Your task to perform on an android device: Go to internet settings Image 0: 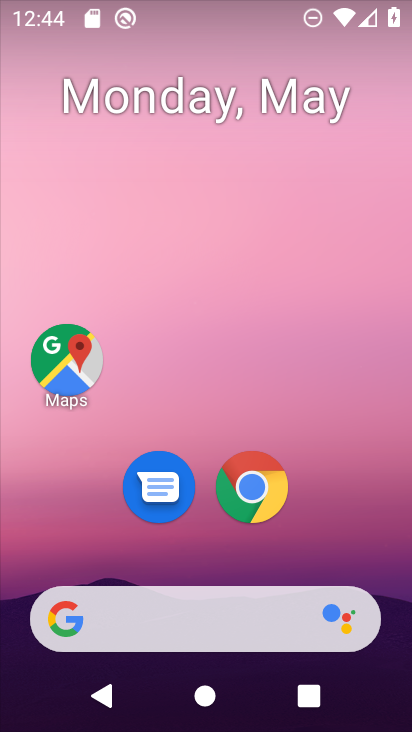
Step 0: drag from (331, 550) to (203, 140)
Your task to perform on an android device: Go to internet settings Image 1: 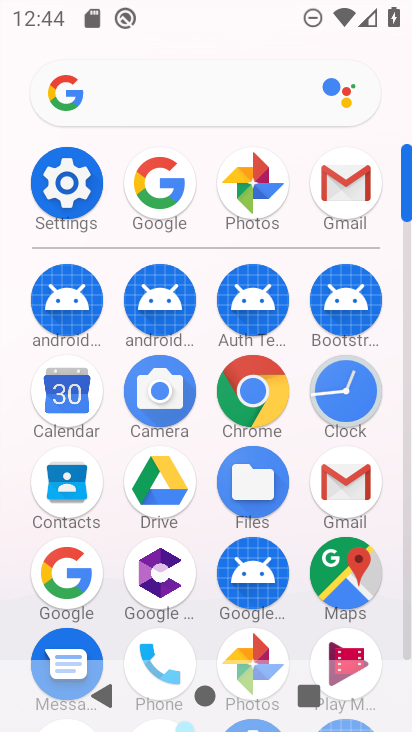
Step 1: click (68, 182)
Your task to perform on an android device: Go to internet settings Image 2: 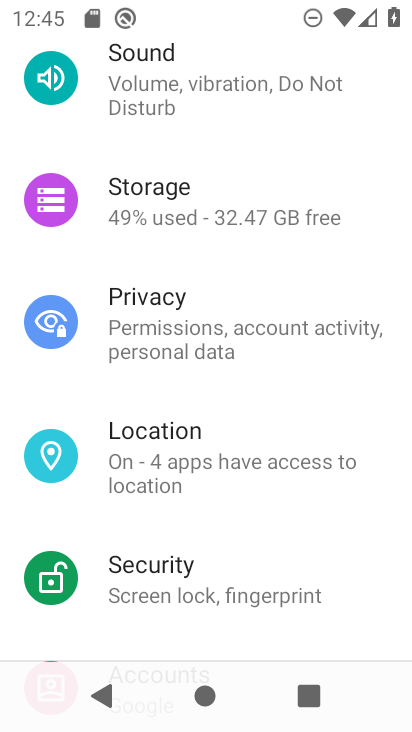
Step 2: drag from (166, 257) to (162, 383)
Your task to perform on an android device: Go to internet settings Image 3: 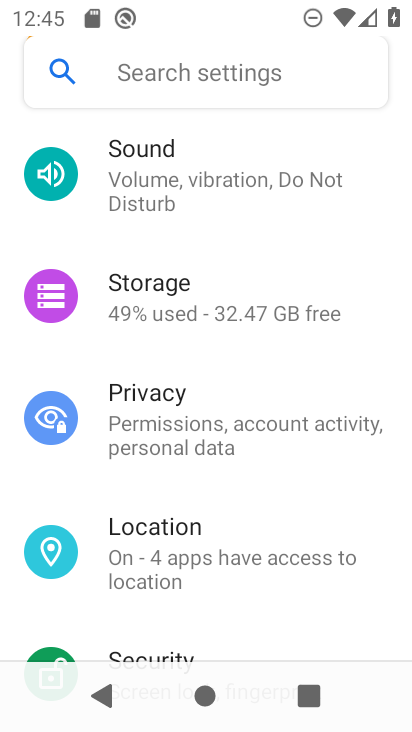
Step 3: drag from (154, 258) to (163, 387)
Your task to perform on an android device: Go to internet settings Image 4: 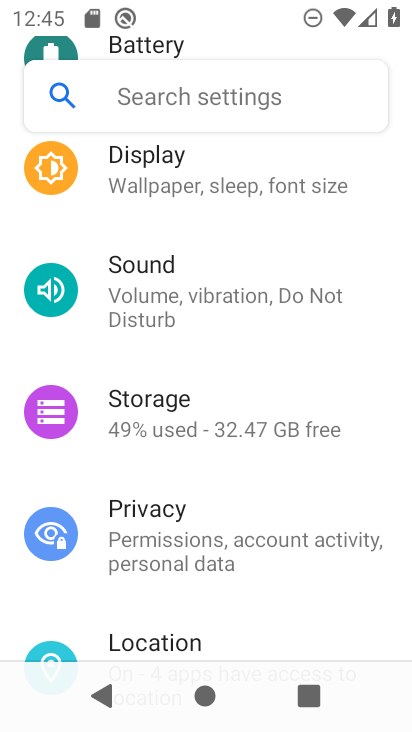
Step 4: drag from (161, 226) to (195, 353)
Your task to perform on an android device: Go to internet settings Image 5: 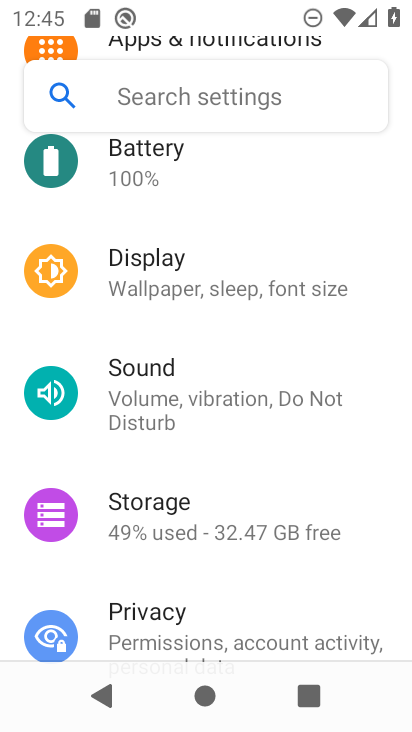
Step 5: drag from (160, 214) to (180, 351)
Your task to perform on an android device: Go to internet settings Image 6: 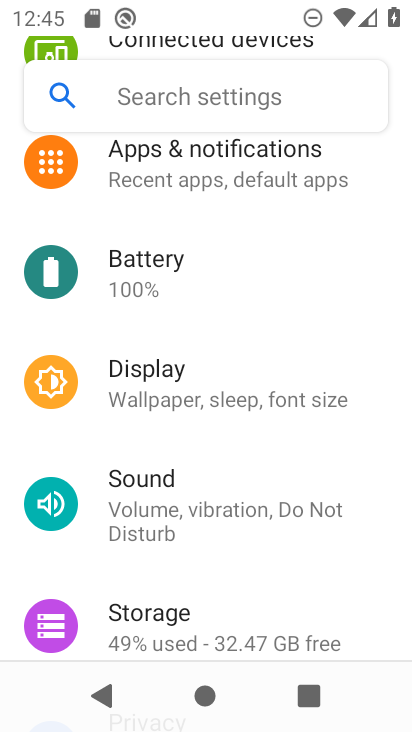
Step 6: drag from (151, 225) to (173, 369)
Your task to perform on an android device: Go to internet settings Image 7: 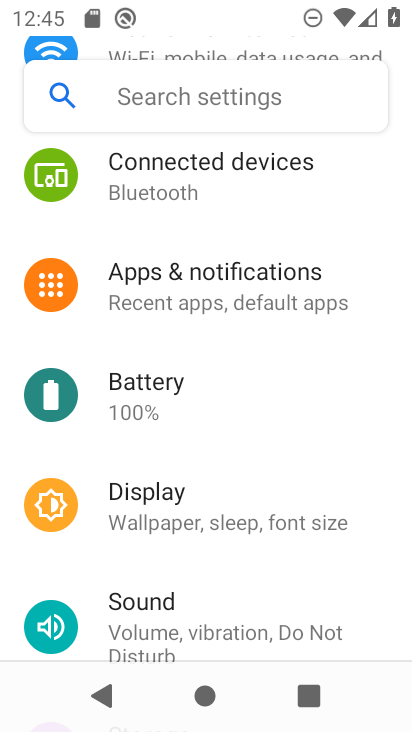
Step 7: drag from (139, 223) to (166, 430)
Your task to perform on an android device: Go to internet settings Image 8: 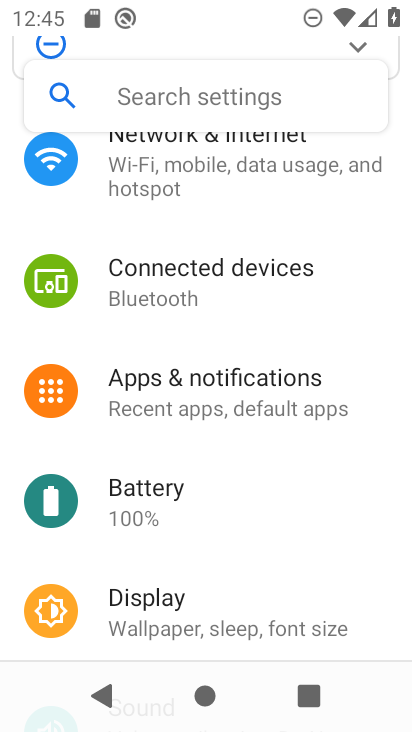
Step 8: drag from (199, 191) to (200, 321)
Your task to perform on an android device: Go to internet settings Image 9: 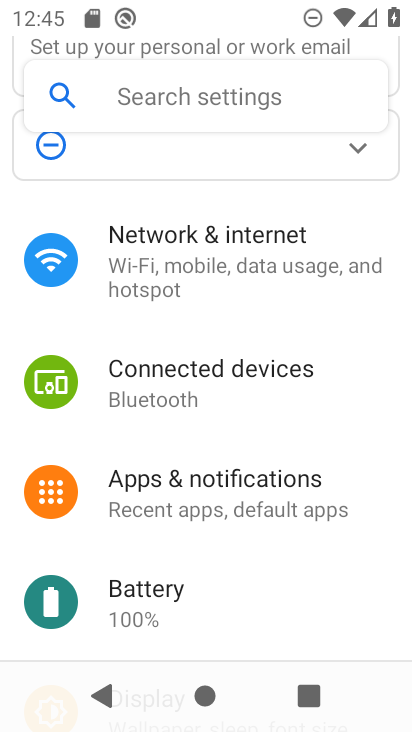
Step 9: click (205, 269)
Your task to perform on an android device: Go to internet settings Image 10: 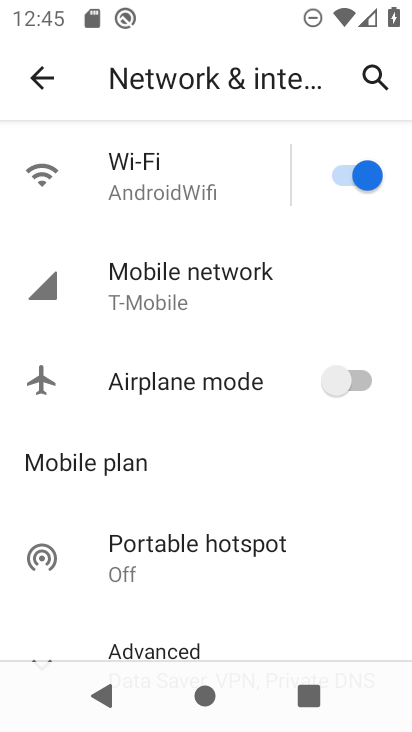
Step 10: click (197, 177)
Your task to perform on an android device: Go to internet settings Image 11: 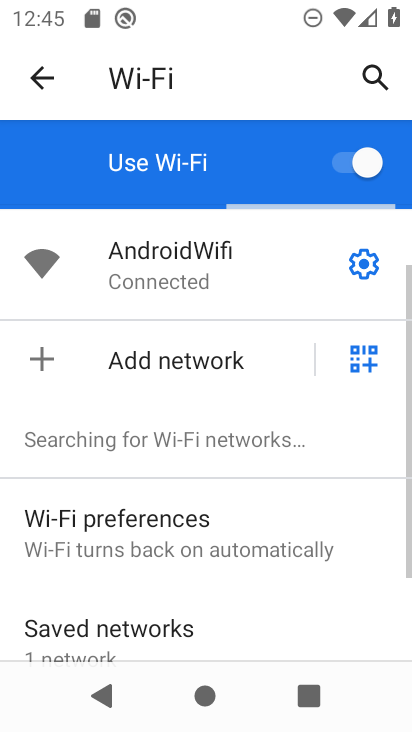
Step 11: task complete